Your task to perform on an android device: toggle improve location accuracy Image 0: 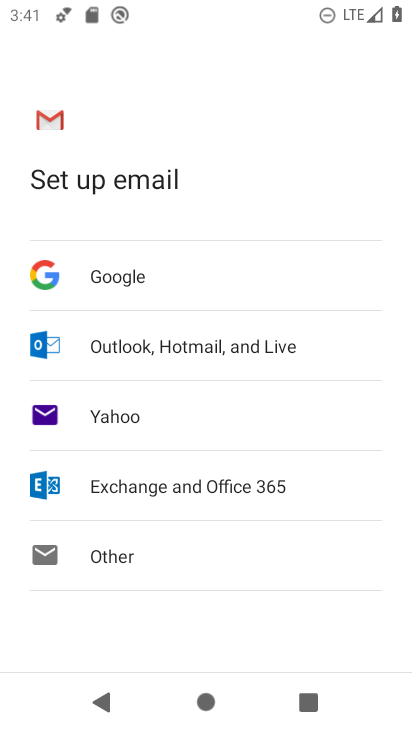
Step 0: press home button
Your task to perform on an android device: toggle improve location accuracy Image 1: 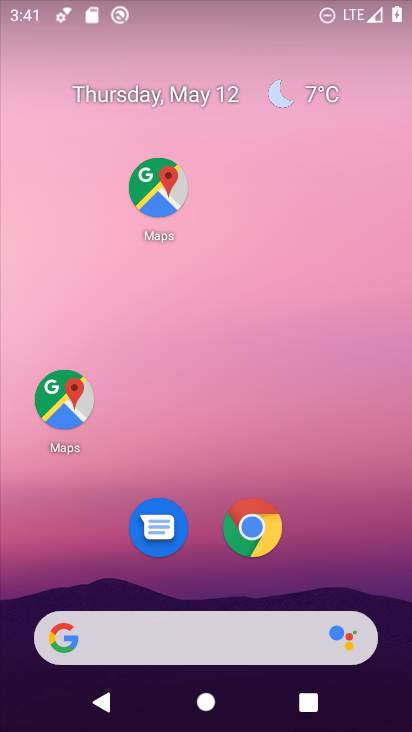
Step 1: drag from (232, 595) to (227, 76)
Your task to perform on an android device: toggle improve location accuracy Image 2: 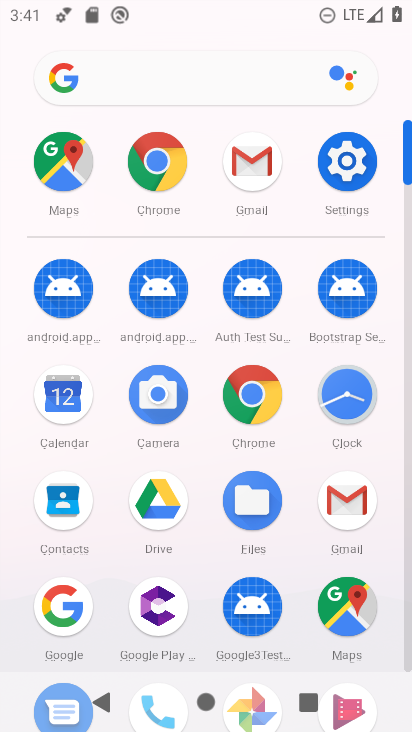
Step 2: click (346, 174)
Your task to perform on an android device: toggle improve location accuracy Image 3: 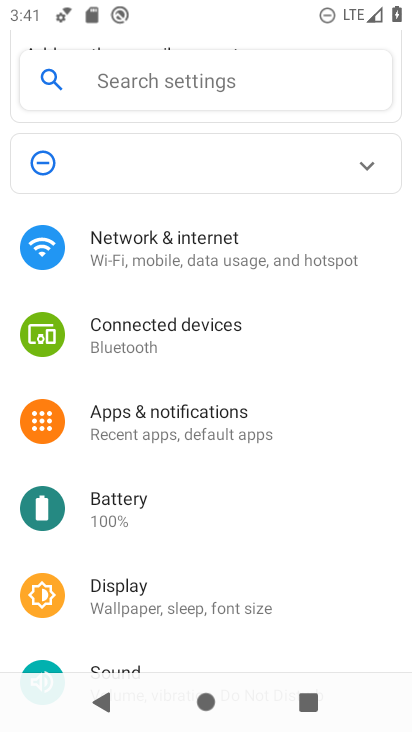
Step 3: drag from (157, 562) to (137, 135)
Your task to perform on an android device: toggle improve location accuracy Image 4: 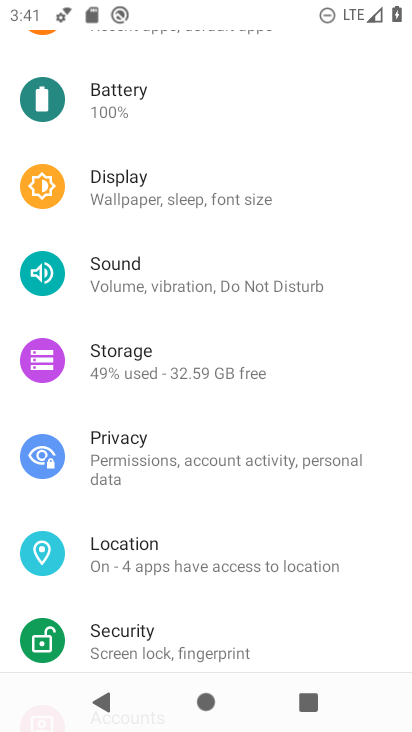
Step 4: drag from (131, 519) to (135, 417)
Your task to perform on an android device: toggle improve location accuracy Image 5: 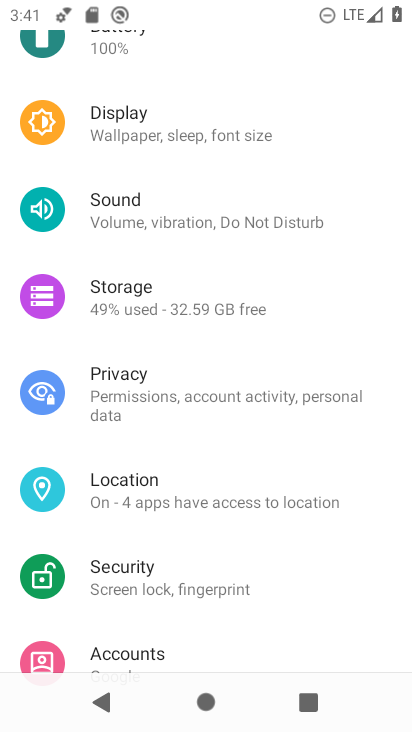
Step 5: click (146, 488)
Your task to perform on an android device: toggle improve location accuracy Image 6: 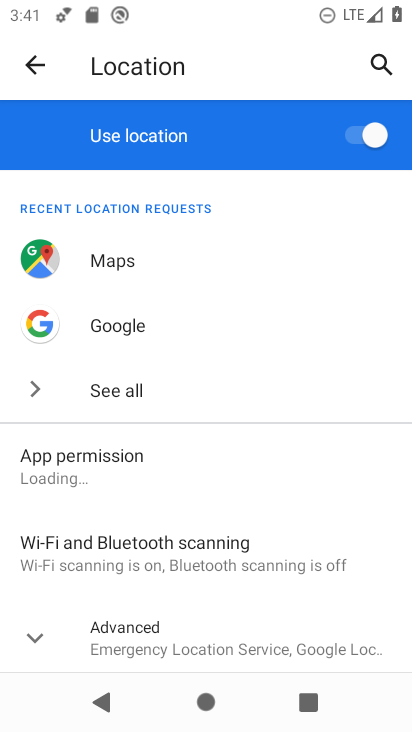
Step 6: click (120, 636)
Your task to perform on an android device: toggle improve location accuracy Image 7: 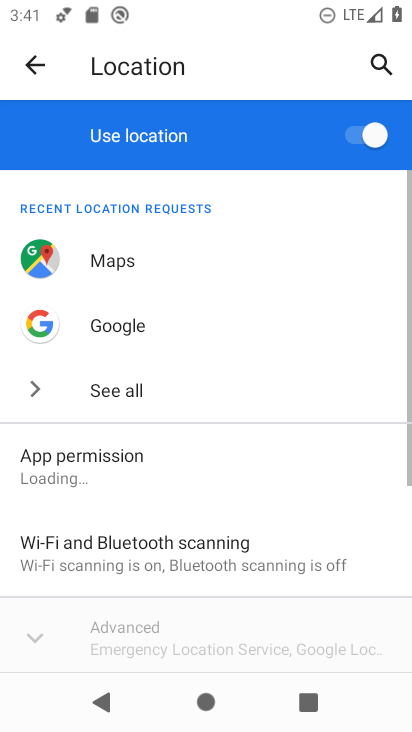
Step 7: drag from (217, 592) to (203, 242)
Your task to perform on an android device: toggle improve location accuracy Image 8: 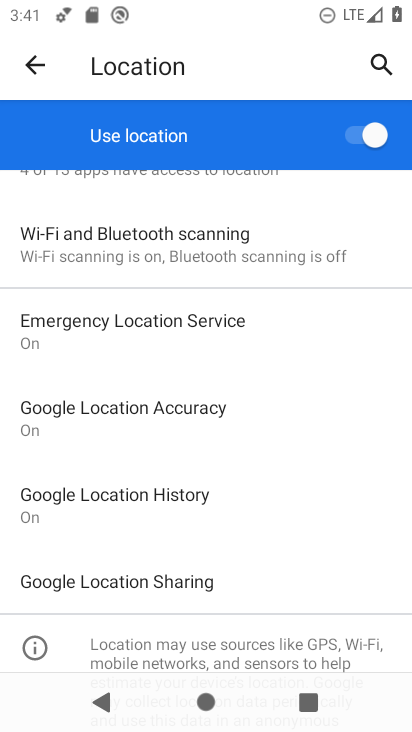
Step 8: click (188, 417)
Your task to perform on an android device: toggle improve location accuracy Image 9: 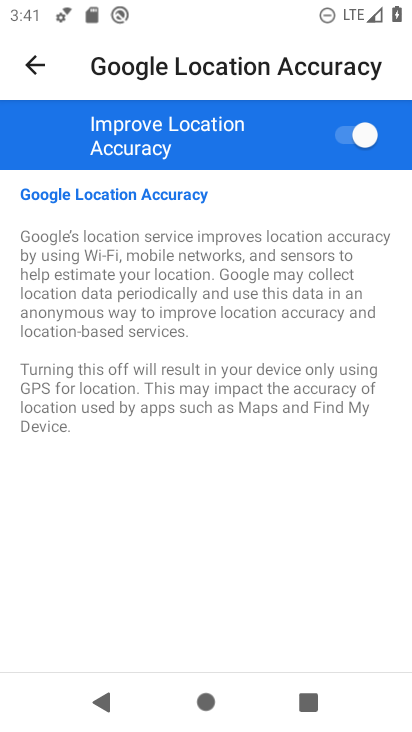
Step 9: click (317, 136)
Your task to perform on an android device: toggle improve location accuracy Image 10: 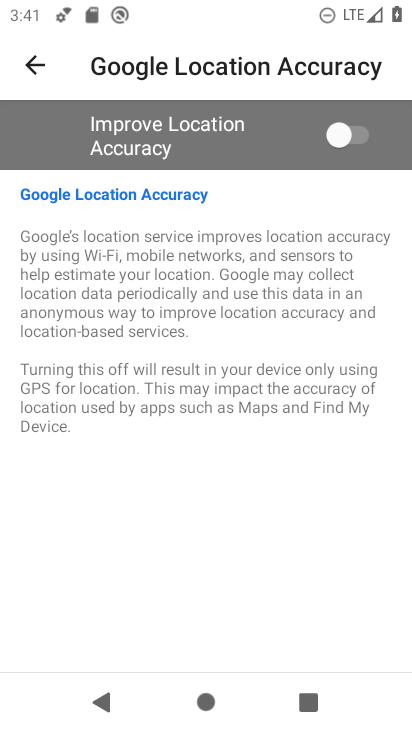
Step 10: task complete